Your task to perform on an android device: Go to CNN.com Image 0: 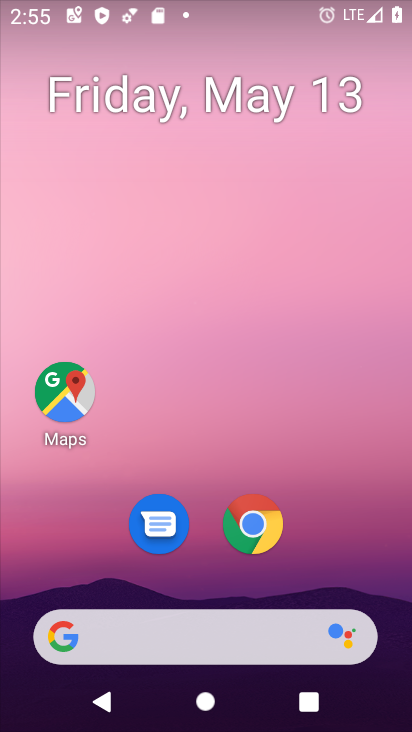
Step 0: click (232, 644)
Your task to perform on an android device: Go to CNN.com Image 1: 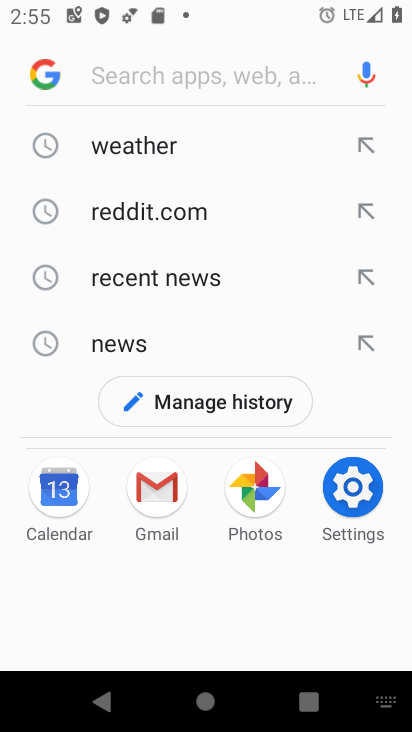
Step 1: type "cnn.com"
Your task to perform on an android device: Go to CNN.com Image 2: 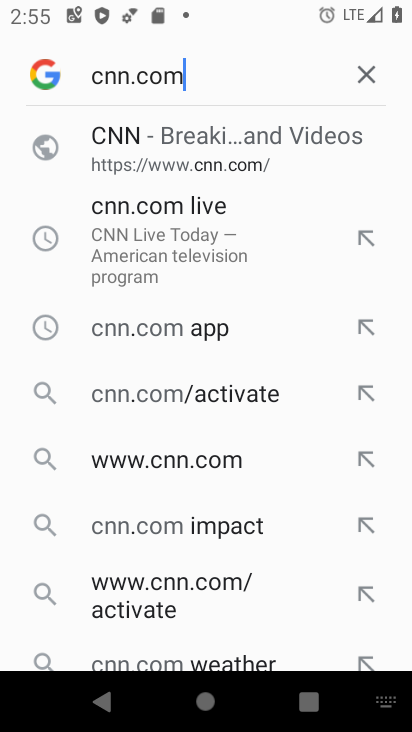
Step 2: click (112, 154)
Your task to perform on an android device: Go to CNN.com Image 3: 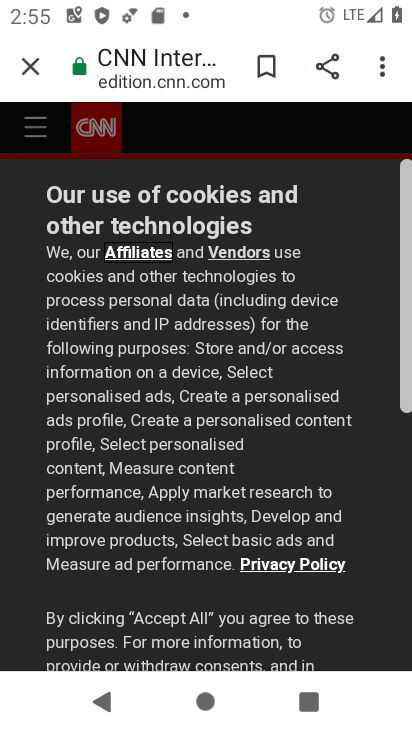
Step 3: task complete